Your task to perform on an android device: turn on airplane mode Image 0: 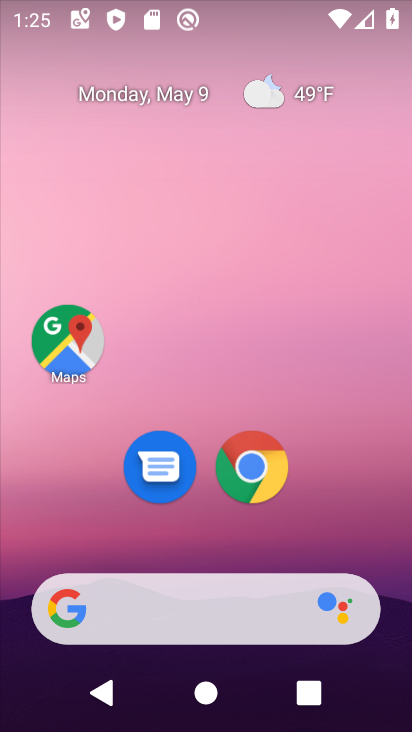
Step 0: drag from (400, 548) to (362, 174)
Your task to perform on an android device: turn on airplane mode Image 1: 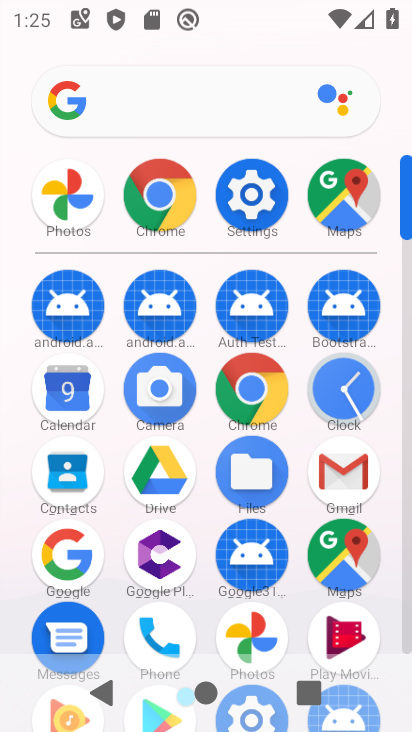
Step 1: click (253, 222)
Your task to perform on an android device: turn on airplane mode Image 2: 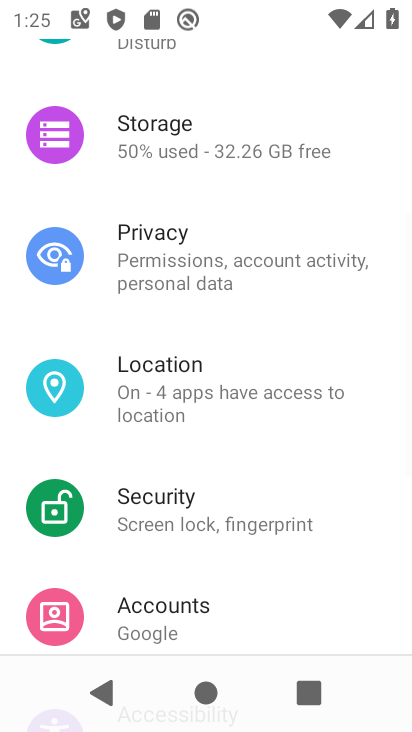
Step 2: drag from (282, 212) to (310, 550)
Your task to perform on an android device: turn on airplane mode Image 3: 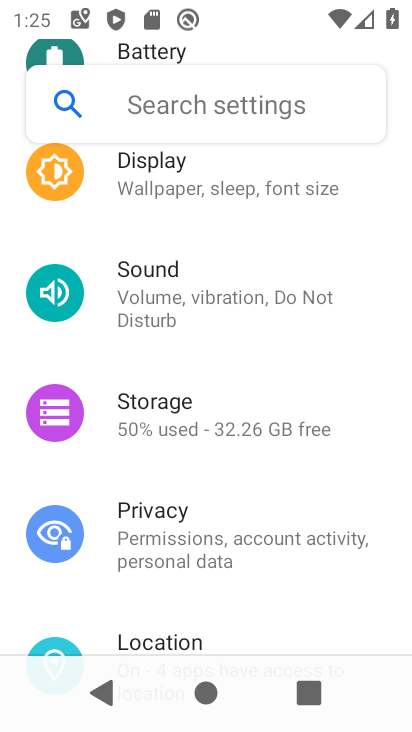
Step 3: drag from (287, 277) to (300, 648)
Your task to perform on an android device: turn on airplane mode Image 4: 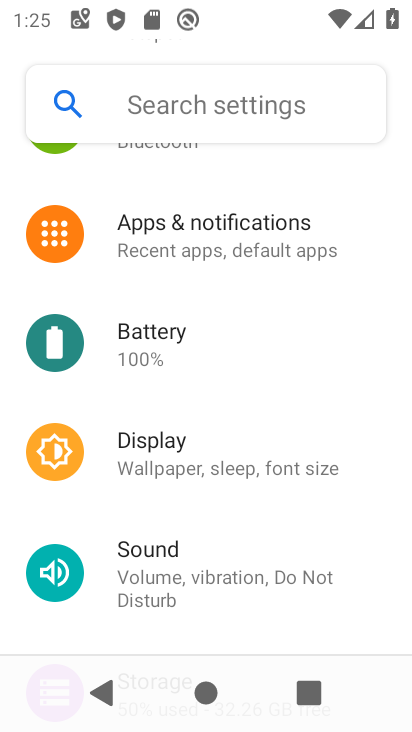
Step 4: drag from (284, 195) to (335, 554)
Your task to perform on an android device: turn on airplane mode Image 5: 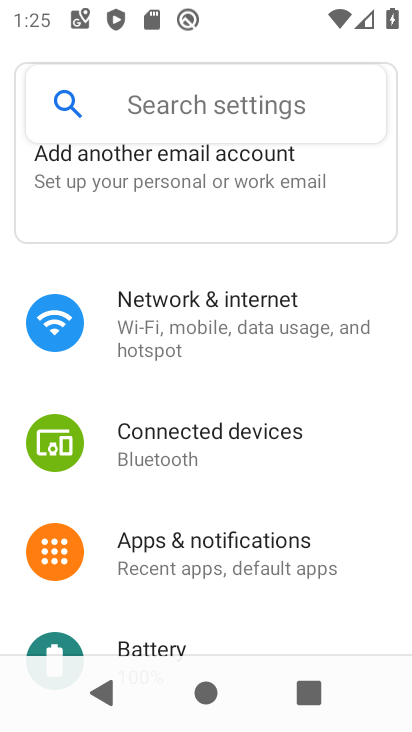
Step 5: click (228, 338)
Your task to perform on an android device: turn on airplane mode Image 6: 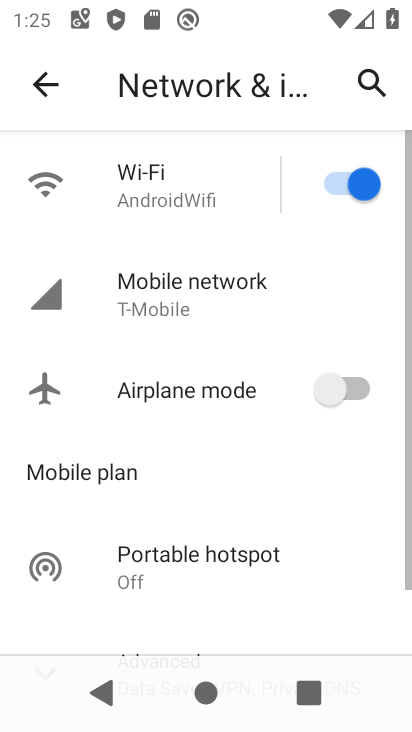
Step 6: click (357, 378)
Your task to perform on an android device: turn on airplane mode Image 7: 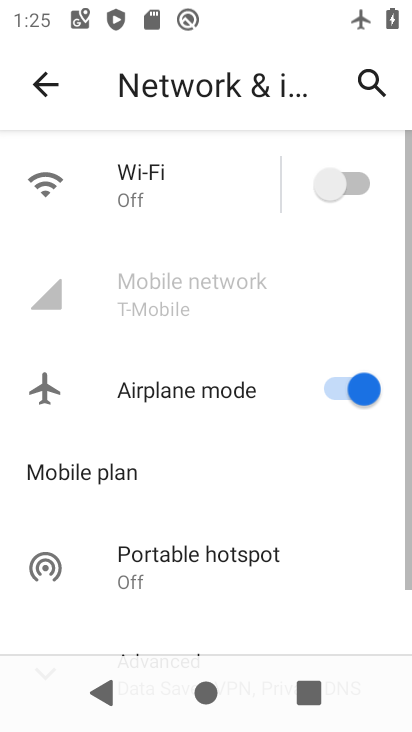
Step 7: task complete